Your task to perform on an android device: all mails in gmail Image 0: 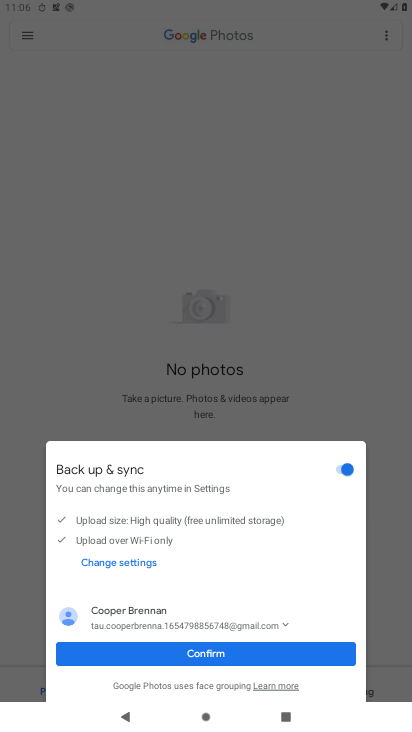
Step 0: press home button
Your task to perform on an android device: all mails in gmail Image 1: 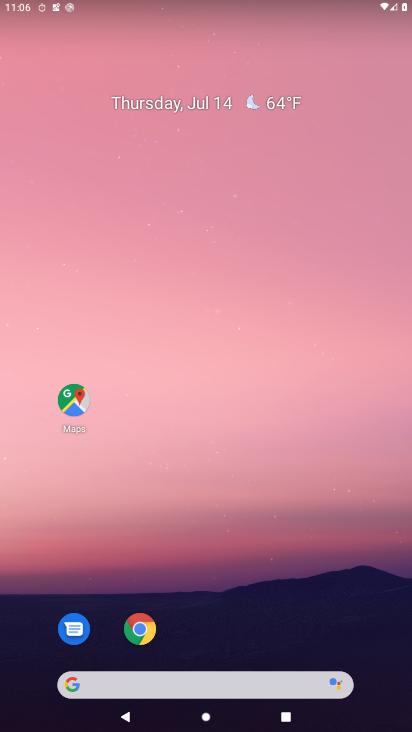
Step 1: drag from (244, 622) to (244, 254)
Your task to perform on an android device: all mails in gmail Image 2: 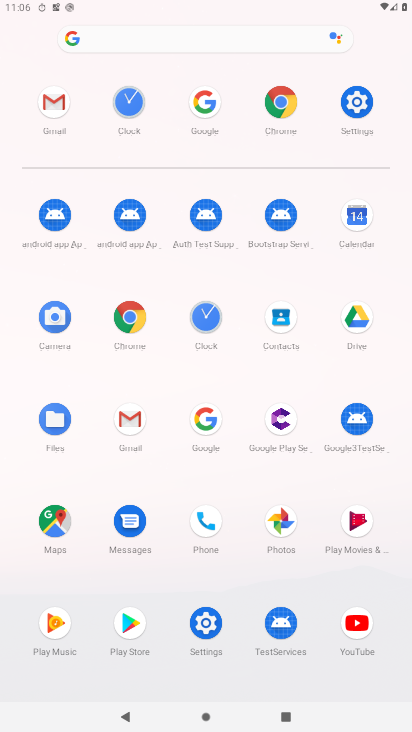
Step 2: click (47, 91)
Your task to perform on an android device: all mails in gmail Image 3: 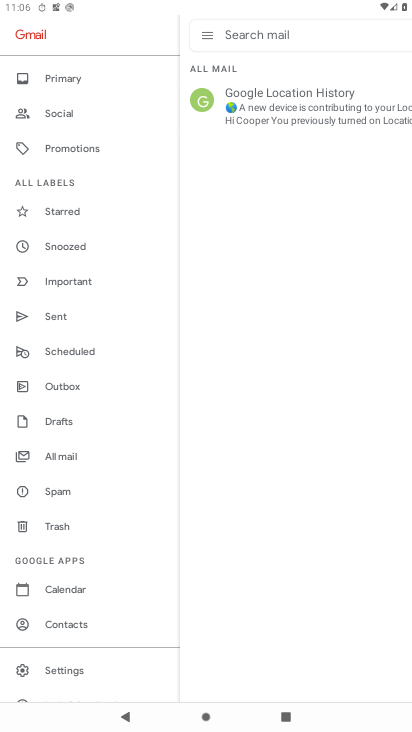
Step 3: click (59, 458)
Your task to perform on an android device: all mails in gmail Image 4: 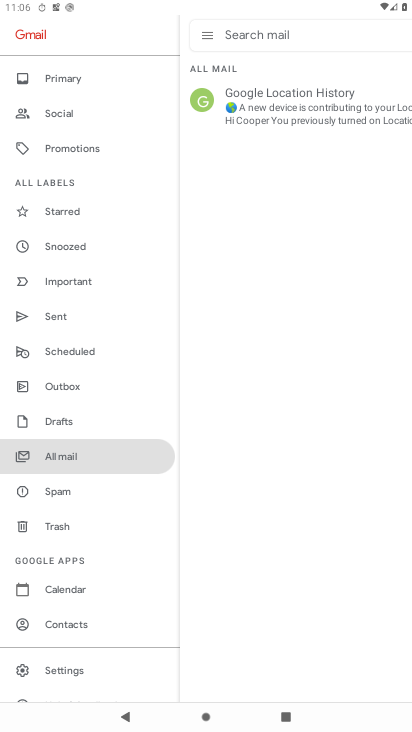
Step 4: task complete